Your task to perform on an android device: Add jbl flip 4 to the cart on newegg, then select checkout. Image 0: 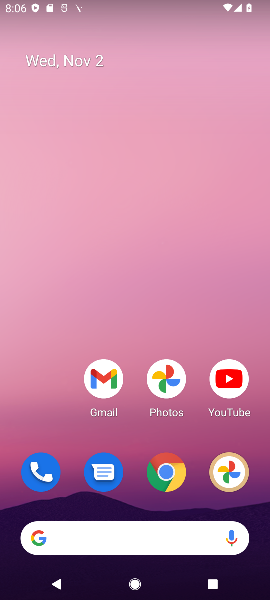
Step 0: click (169, 471)
Your task to perform on an android device: Add jbl flip 4 to the cart on newegg, then select checkout. Image 1: 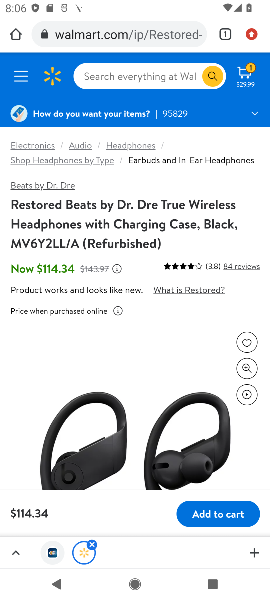
Step 1: click (125, 36)
Your task to perform on an android device: Add jbl flip 4 to the cart on newegg, then select checkout. Image 2: 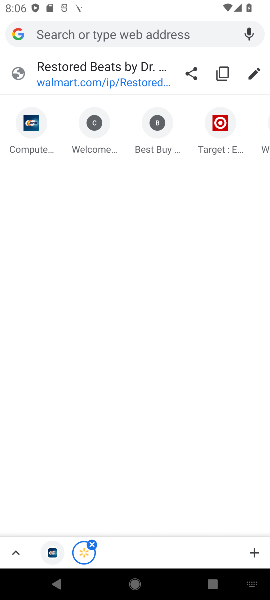
Step 2: type "newegg"
Your task to perform on an android device: Add jbl flip 4 to the cart on newegg, then select checkout. Image 3: 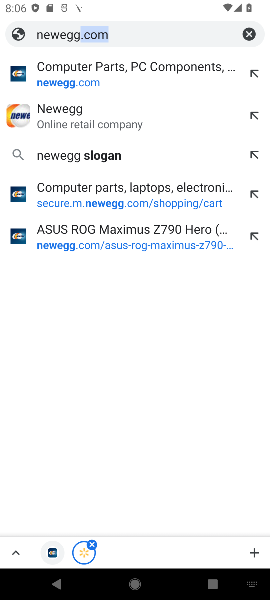
Step 3: click (84, 71)
Your task to perform on an android device: Add jbl flip 4 to the cart on newegg, then select checkout. Image 4: 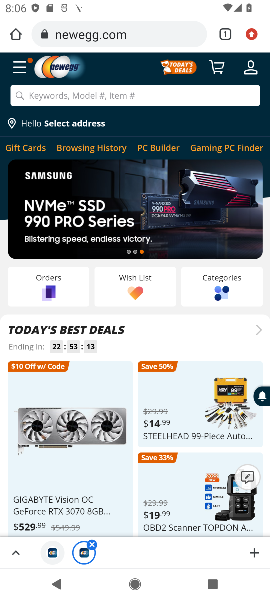
Step 4: click (149, 95)
Your task to perform on an android device: Add jbl flip 4 to the cart on newegg, then select checkout. Image 5: 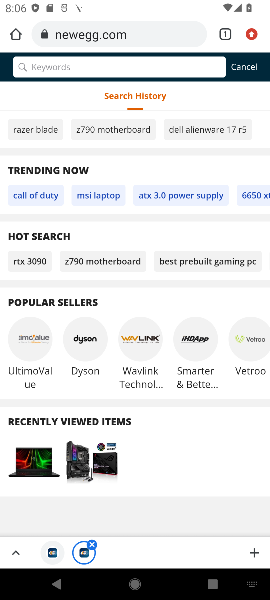
Step 5: type "jbl flip 4"
Your task to perform on an android device: Add jbl flip 4 to the cart on newegg, then select checkout. Image 6: 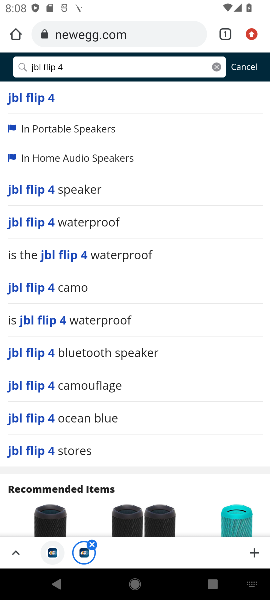
Step 6: click (70, 103)
Your task to perform on an android device: Add jbl flip 4 to the cart on newegg, then select checkout. Image 7: 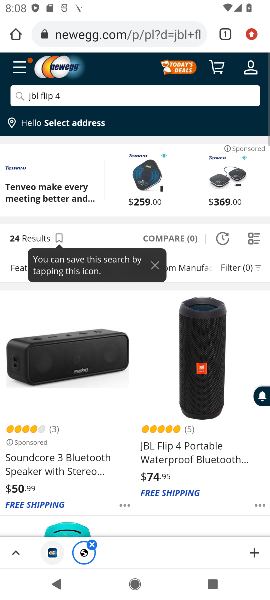
Step 7: click (71, 371)
Your task to perform on an android device: Add jbl flip 4 to the cart on newegg, then select checkout. Image 8: 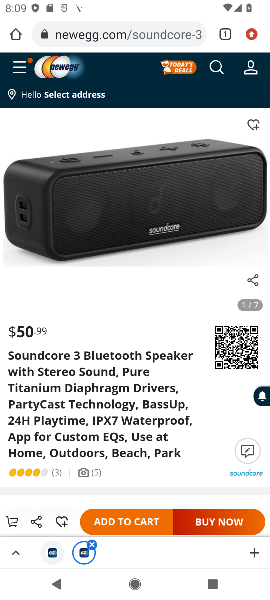
Step 8: click (130, 521)
Your task to perform on an android device: Add jbl flip 4 to the cart on newegg, then select checkout. Image 9: 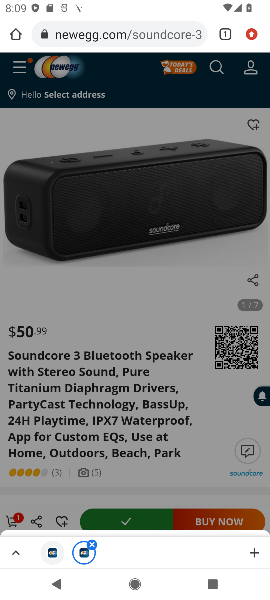
Step 9: click (16, 517)
Your task to perform on an android device: Add jbl flip 4 to the cart on newegg, then select checkout. Image 10: 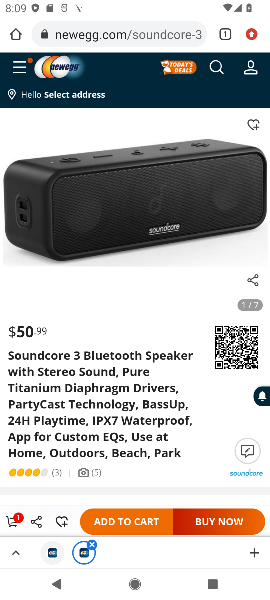
Step 10: click (17, 521)
Your task to perform on an android device: Add jbl flip 4 to the cart on newegg, then select checkout. Image 11: 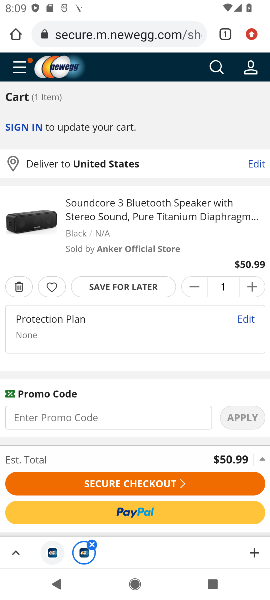
Step 11: click (108, 484)
Your task to perform on an android device: Add jbl flip 4 to the cart on newegg, then select checkout. Image 12: 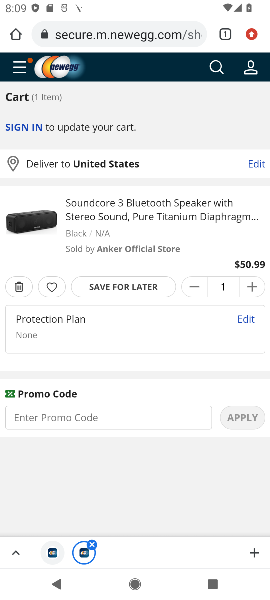
Step 12: task complete